Your task to perform on an android device: Go to privacy settings Image 0: 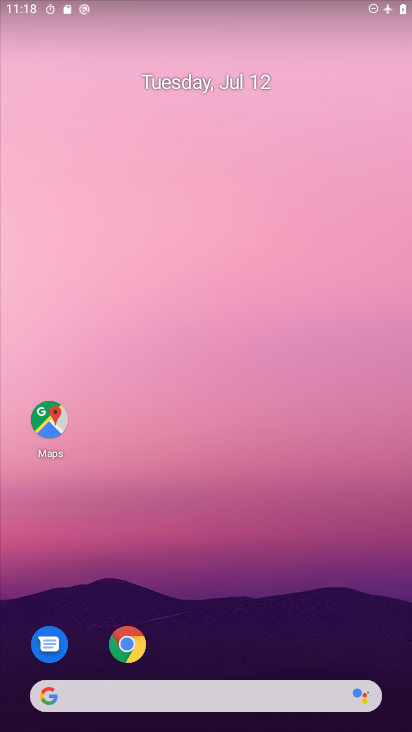
Step 0: drag from (231, 648) to (216, 210)
Your task to perform on an android device: Go to privacy settings Image 1: 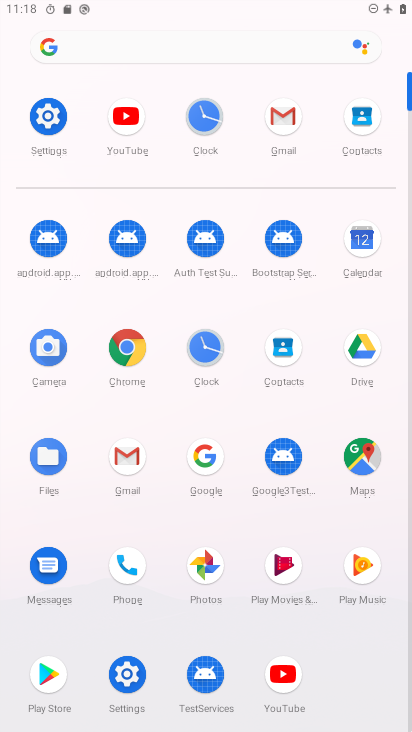
Step 1: click (62, 113)
Your task to perform on an android device: Go to privacy settings Image 2: 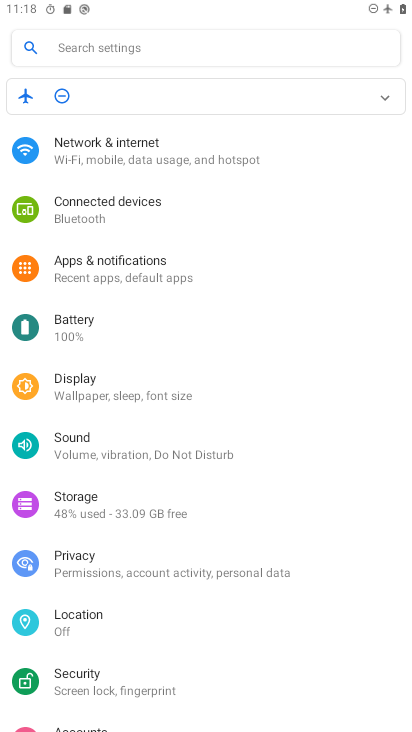
Step 2: click (176, 566)
Your task to perform on an android device: Go to privacy settings Image 3: 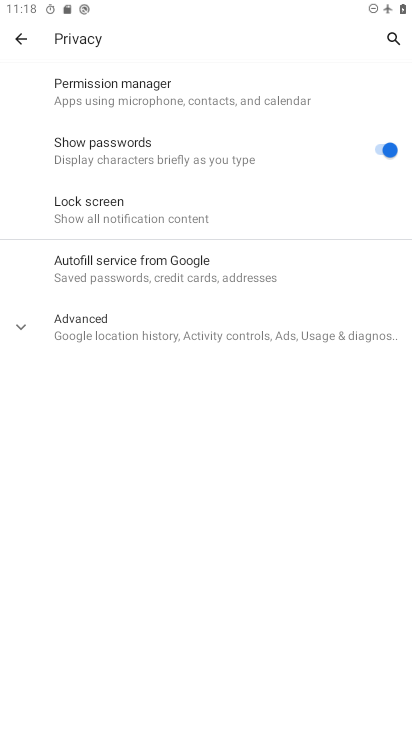
Step 3: task complete